Your task to perform on an android device: open app "YouTube Kids" (install if not already installed) and enter user name: "atmospheric@gmail.com" and password: "raze" Image 0: 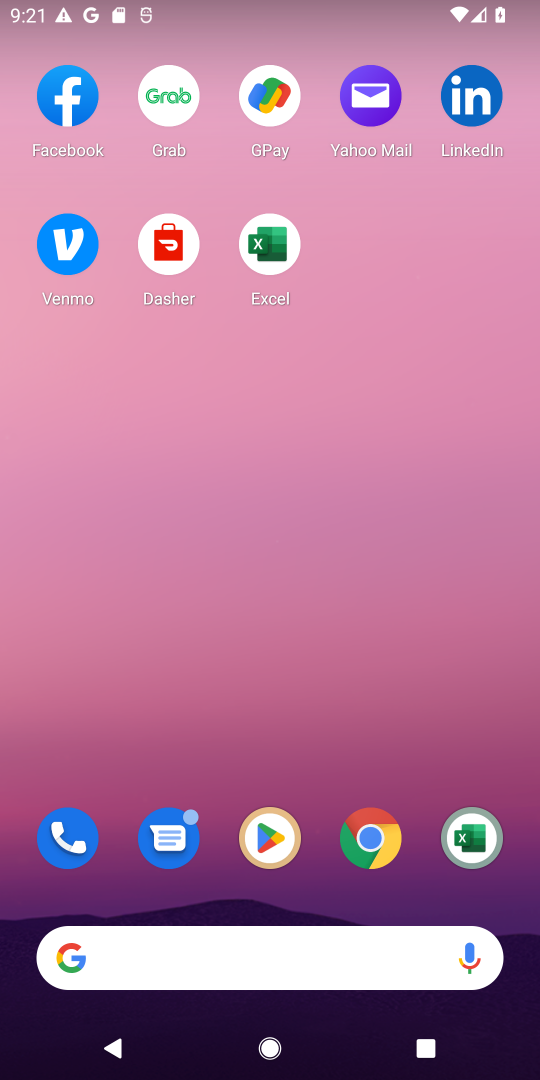
Step 0: click (267, 837)
Your task to perform on an android device: open app "YouTube Kids" (install if not already installed) and enter user name: "atmospheric@gmail.com" and password: "raze" Image 1: 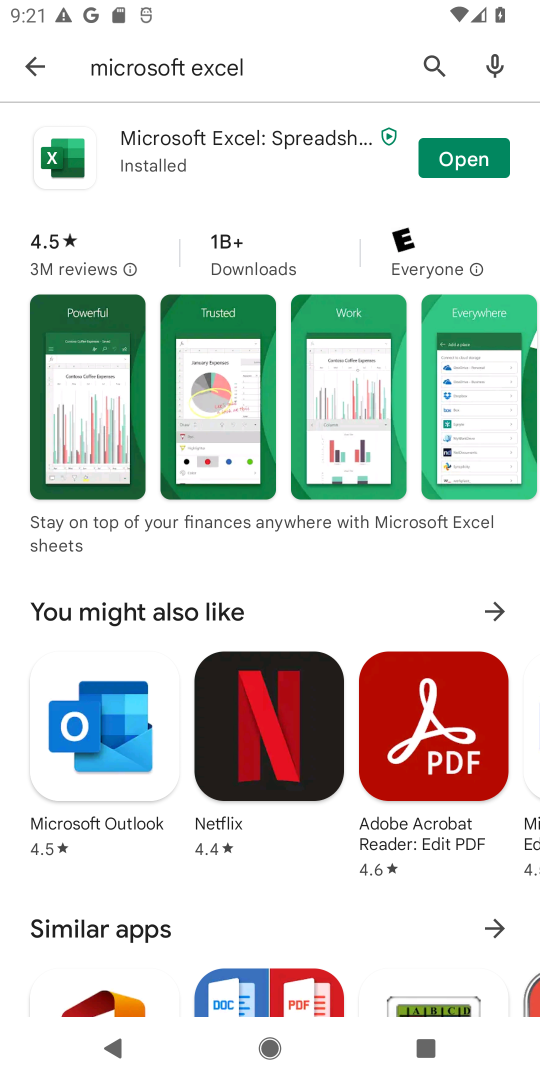
Step 1: click (427, 71)
Your task to perform on an android device: open app "YouTube Kids" (install if not already installed) and enter user name: "atmospheric@gmail.com" and password: "raze" Image 2: 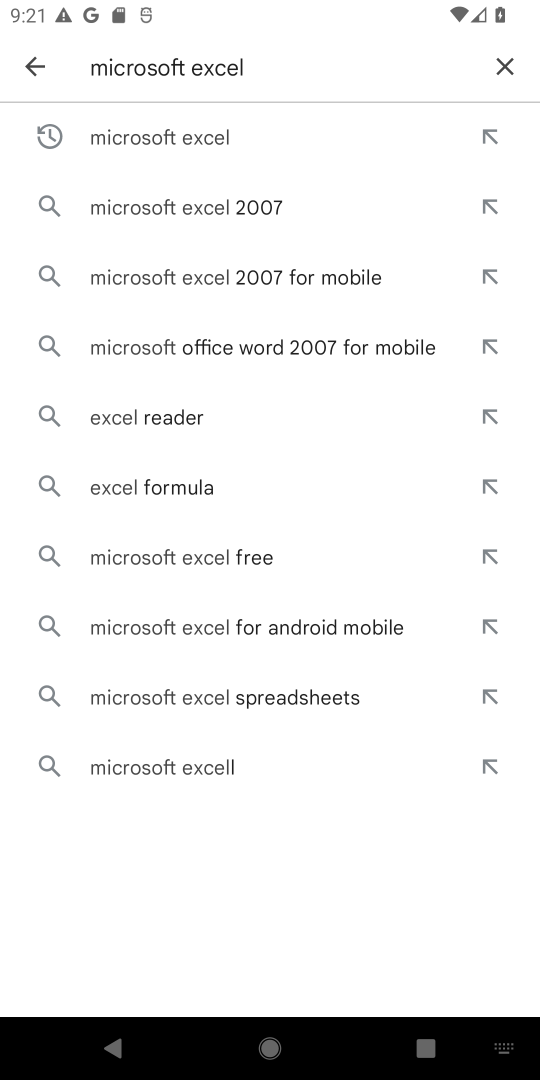
Step 2: click (494, 69)
Your task to perform on an android device: open app "YouTube Kids" (install if not already installed) and enter user name: "atmospheric@gmail.com" and password: "raze" Image 3: 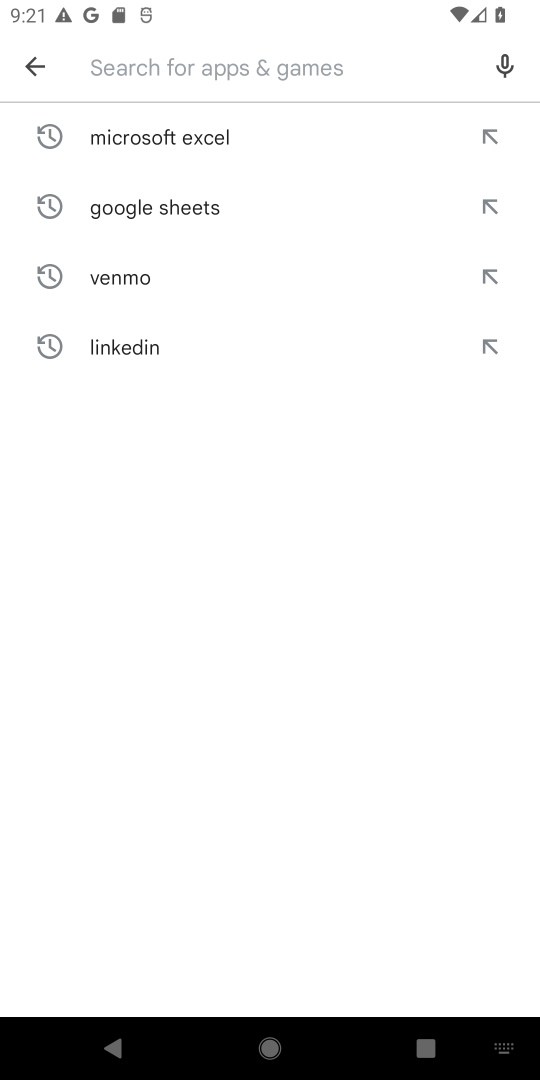
Step 3: type "YouTube Kids"
Your task to perform on an android device: open app "YouTube Kids" (install if not already installed) and enter user name: "atmospheric@gmail.com" and password: "raze" Image 4: 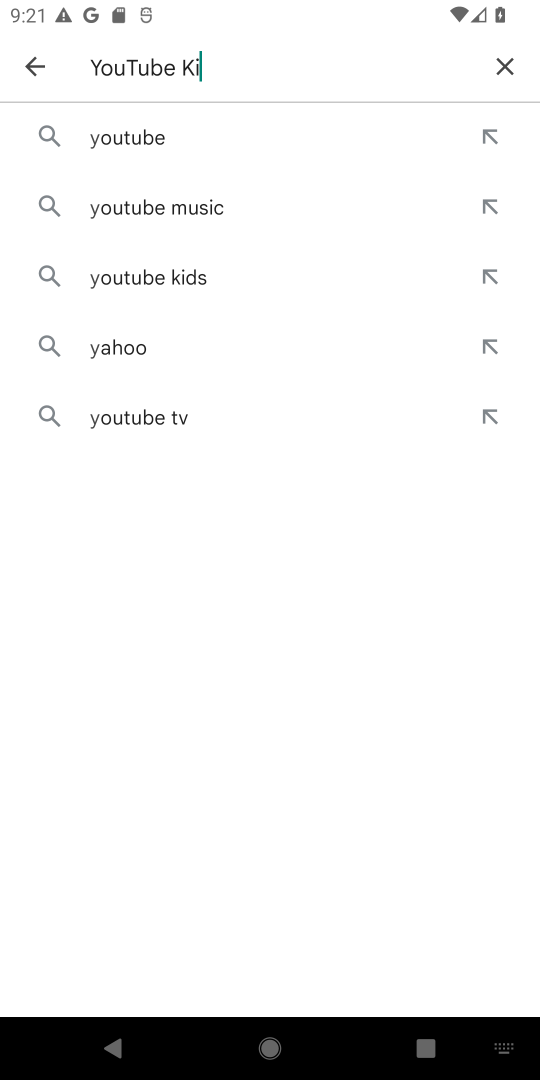
Step 4: type ""
Your task to perform on an android device: open app "YouTube Kids" (install if not already installed) and enter user name: "atmospheric@gmail.com" and password: "raze" Image 5: 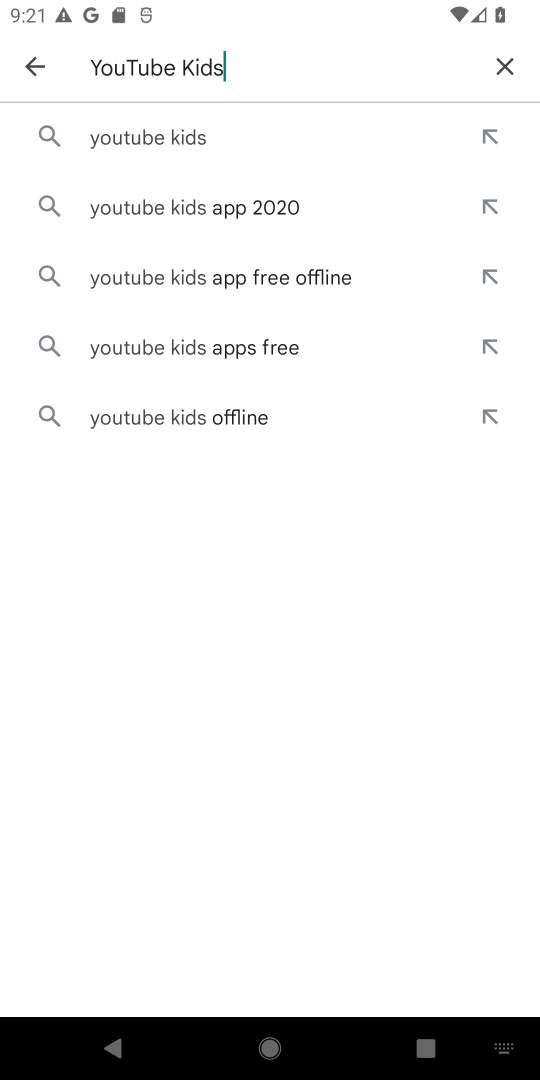
Step 5: click (222, 127)
Your task to perform on an android device: open app "YouTube Kids" (install if not already installed) and enter user name: "atmospheric@gmail.com" and password: "raze" Image 6: 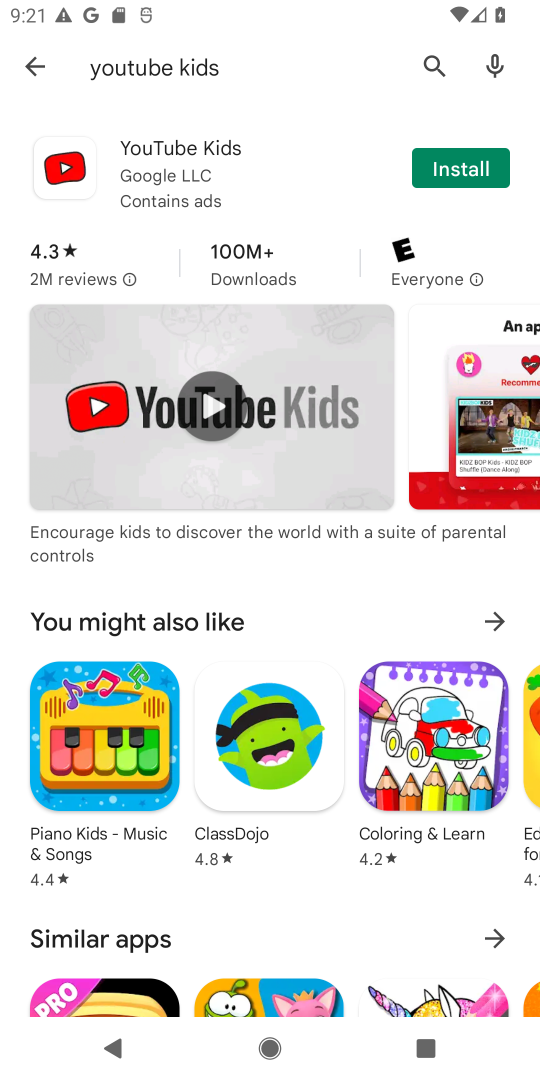
Step 6: click (471, 176)
Your task to perform on an android device: open app "YouTube Kids" (install if not already installed) and enter user name: "atmospheric@gmail.com" and password: "raze" Image 7: 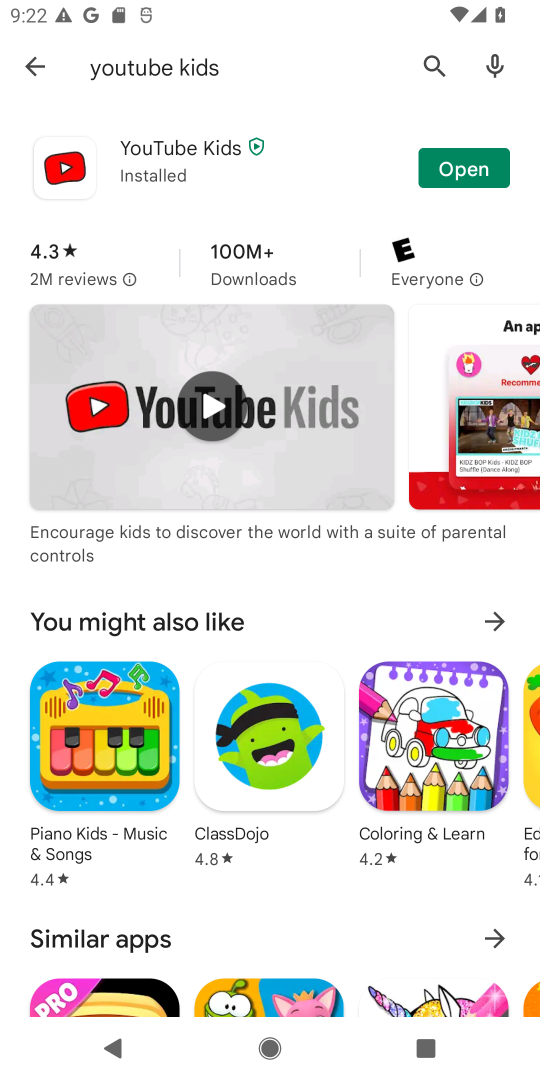
Step 7: click (481, 163)
Your task to perform on an android device: open app "YouTube Kids" (install if not already installed) and enter user name: "atmospheric@gmail.com" and password: "raze" Image 8: 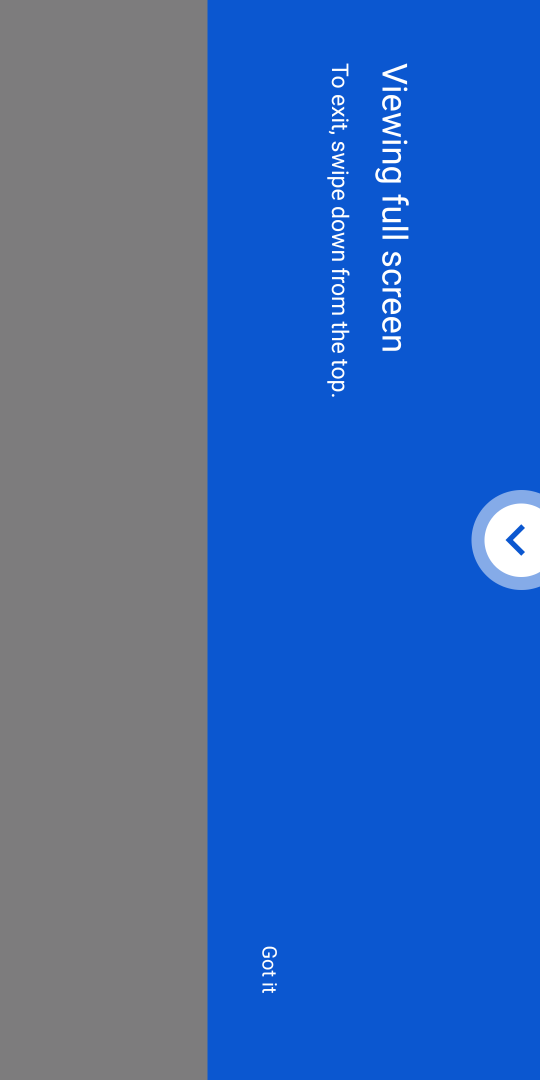
Step 8: task complete